Your task to perform on an android device: change your default location settings in chrome Image 0: 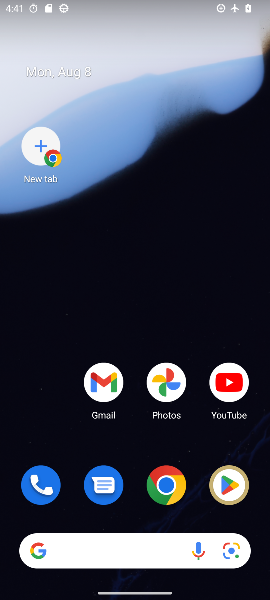
Step 0: drag from (148, 561) to (122, 158)
Your task to perform on an android device: change your default location settings in chrome Image 1: 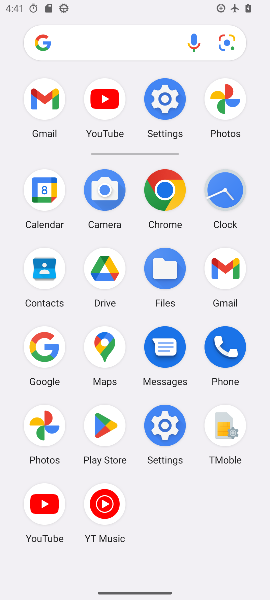
Step 1: click (164, 429)
Your task to perform on an android device: change your default location settings in chrome Image 2: 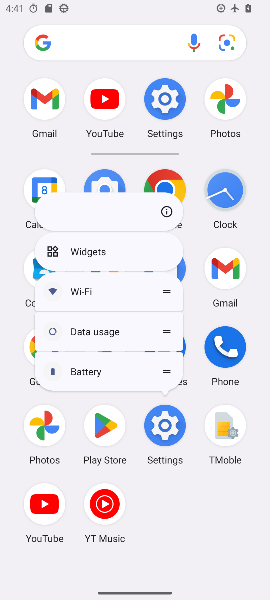
Step 2: click (166, 433)
Your task to perform on an android device: change your default location settings in chrome Image 3: 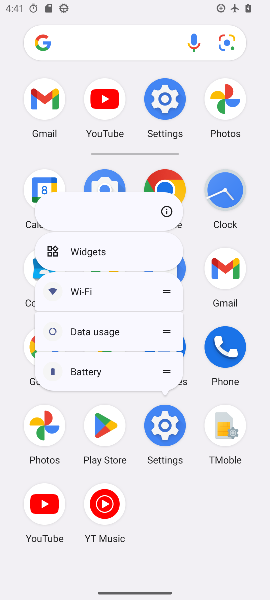
Step 3: click (167, 434)
Your task to perform on an android device: change your default location settings in chrome Image 4: 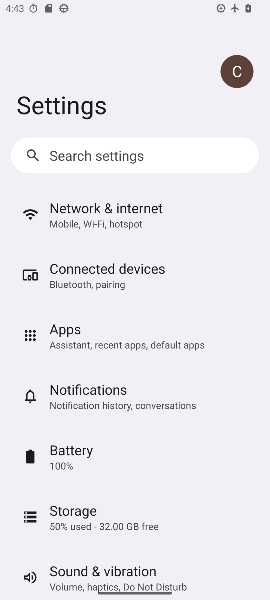
Step 4: press back button
Your task to perform on an android device: change your default location settings in chrome Image 5: 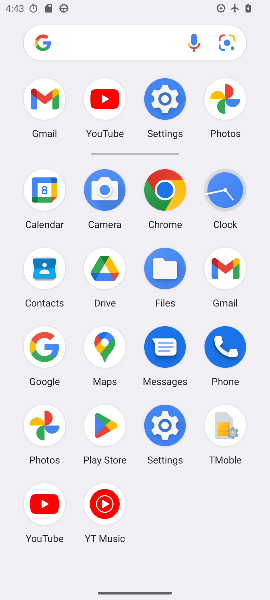
Step 5: click (154, 190)
Your task to perform on an android device: change your default location settings in chrome Image 6: 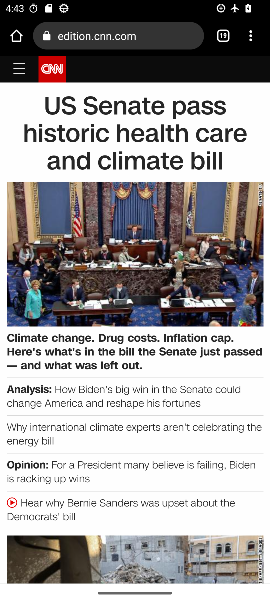
Step 6: click (249, 37)
Your task to perform on an android device: change your default location settings in chrome Image 7: 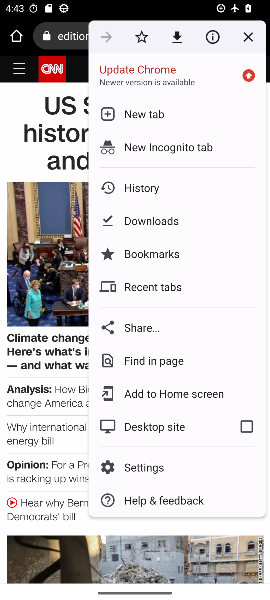
Step 7: click (151, 466)
Your task to perform on an android device: change your default location settings in chrome Image 8: 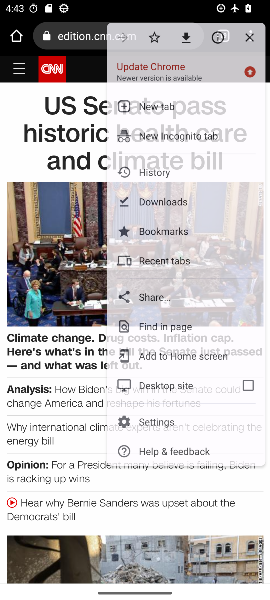
Step 8: click (151, 469)
Your task to perform on an android device: change your default location settings in chrome Image 9: 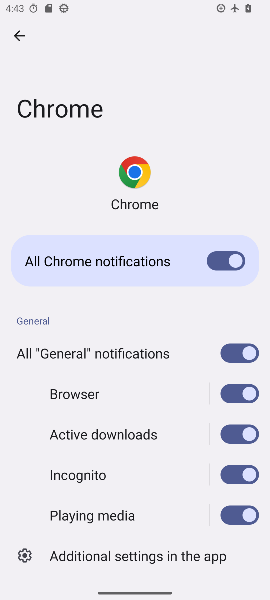
Step 9: click (21, 26)
Your task to perform on an android device: change your default location settings in chrome Image 10: 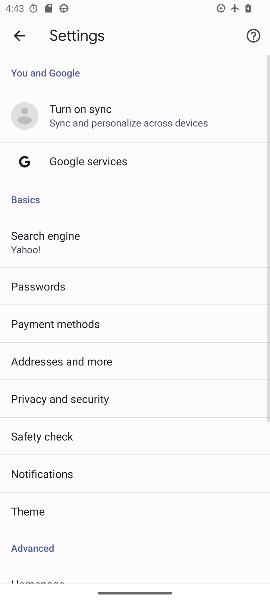
Step 10: drag from (56, 516) to (48, 186)
Your task to perform on an android device: change your default location settings in chrome Image 11: 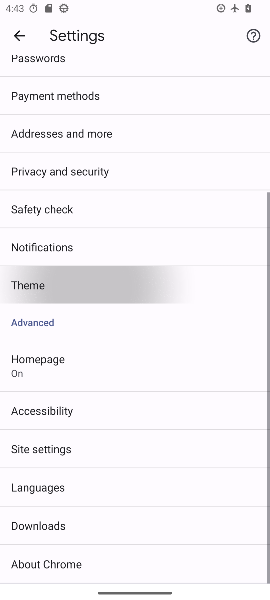
Step 11: drag from (48, 390) to (70, 209)
Your task to perform on an android device: change your default location settings in chrome Image 12: 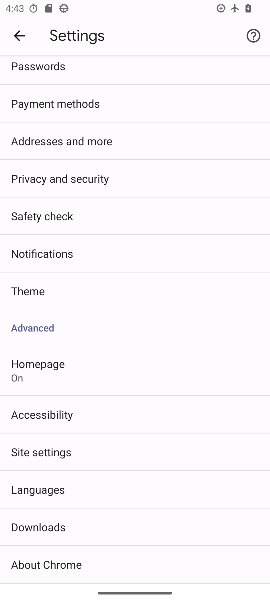
Step 12: click (34, 450)
Your task to perform on an android device: change your default location settings in chrome Image 13: 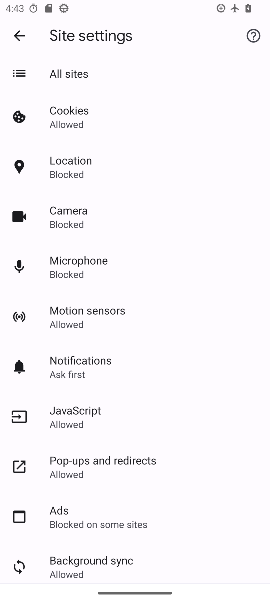
Step 13: click (57, 160)
Your task to perform on an android device: change your default location settings in chrome Image 14: 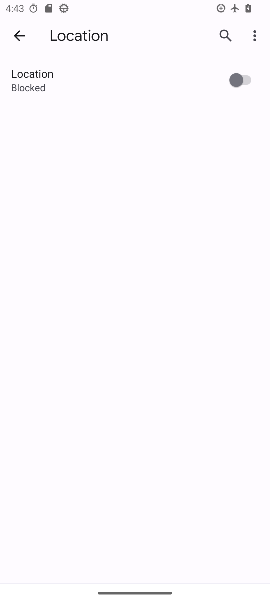
Step 14: click (237, 78)
Your task to perform on an android device: change your default location settings in chrome Image 15: 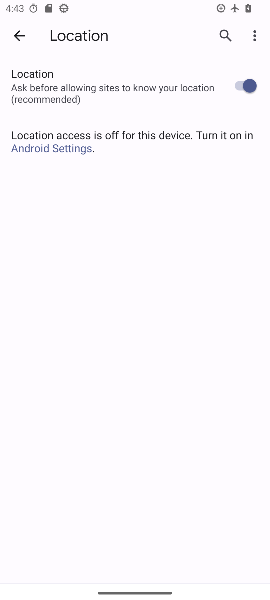
Step 15: task complete